Your task to perform on an android device: Go to Google Image 0: 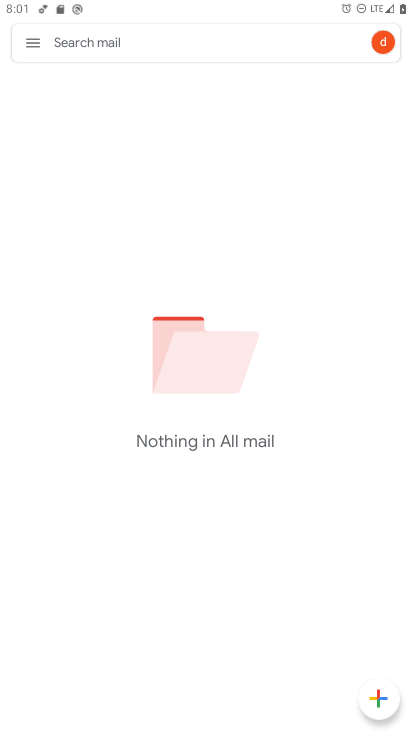
Step 0: press home button
Your task to perform on an android device: Go to Google Image 1: 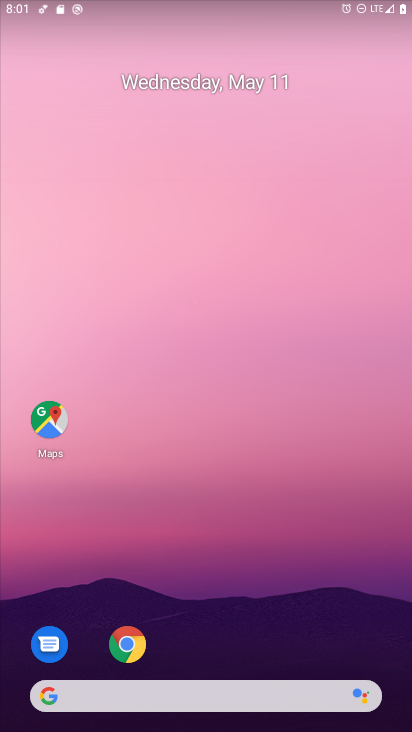
Step 1: click (38, 693)
Your task to perform on an android device: Go to Google Image 2: 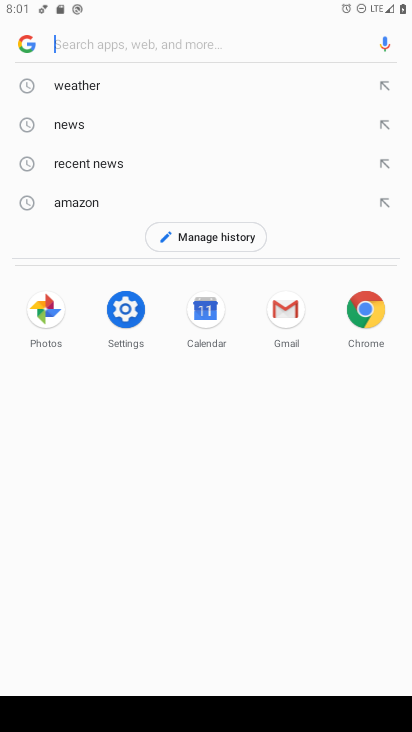
Step 2: task complete